Your task to perform on an android device: remove spam from my inbox in the gmail app Image 0: 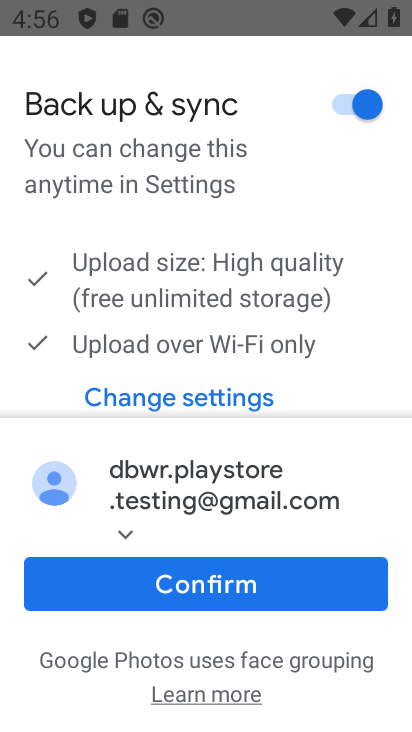
Step 0: press home button
Your task to perform on an android device: remove spam from my inbox in the gmail app Image 1: 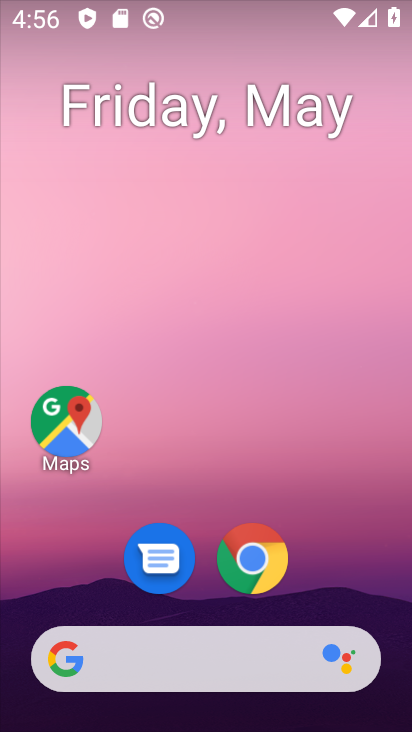
Step 1: drag from (358, 579) to (280, 67)
Your task to perform on an android device: remove spam from my inbox in the gmail app Image 2: 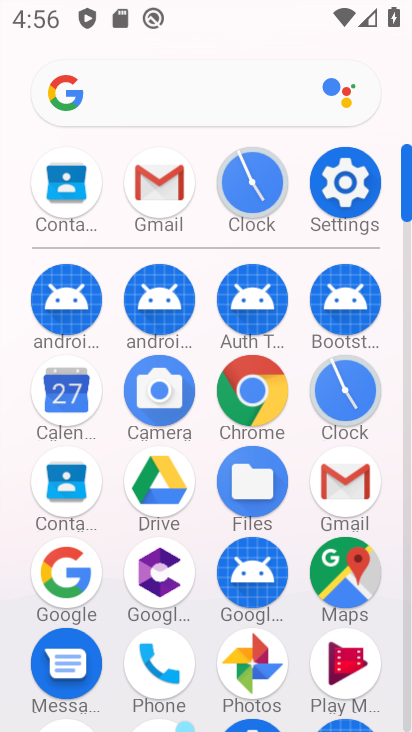
Step 2: click (148, 186)
Your task to perform on an android device: remove spam from my inbox in the gmail app Image 3: 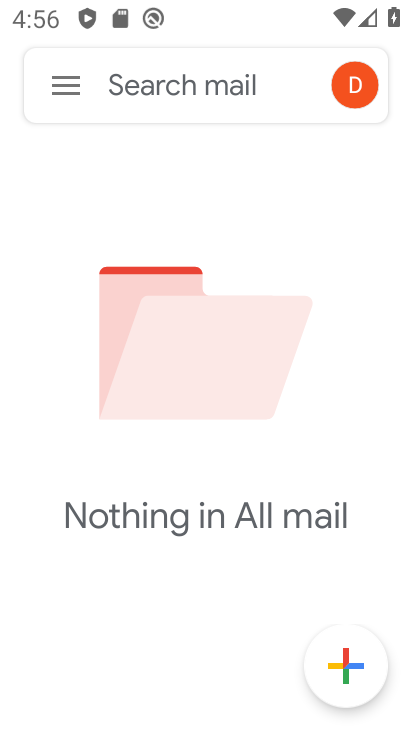
Step 3: click (68, 87)
Your task to perform on an android device: remove spam from my inbox in the gmail app Image 4: 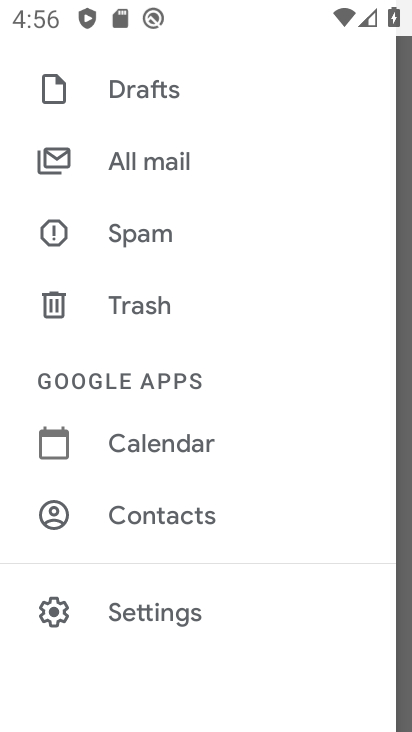
Step 4: click (178, 239)
Your task to perform on an android device: remove spam from my inbox in the gmail app Image 5: 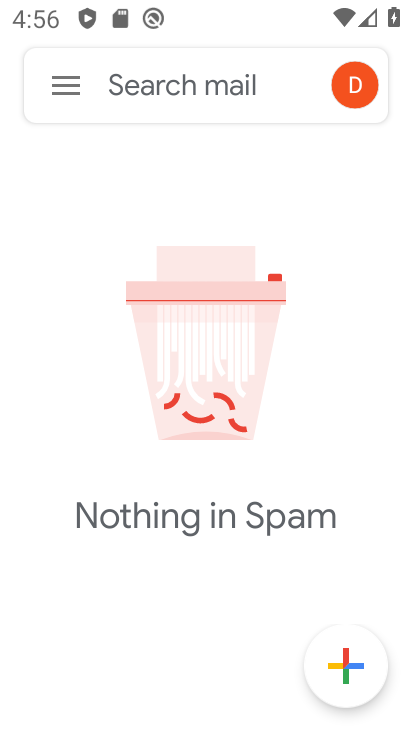
Step 5: task complete